Your task to perform on an android device: empty trash in the gmail app Image 0: 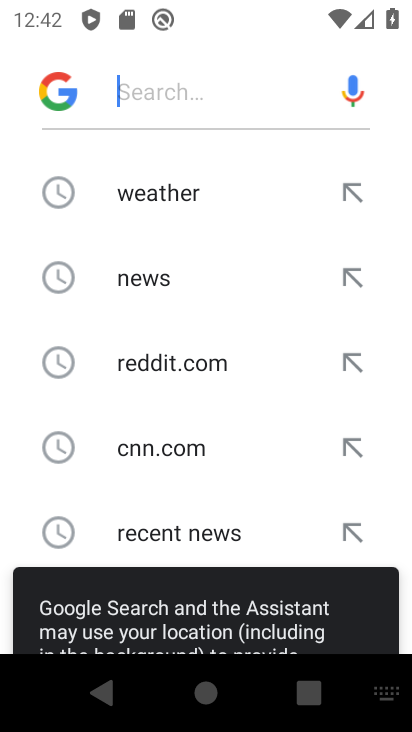
Step 0: press home button
Your task to perform on an android device: empty trash in the gmail app Image 1: 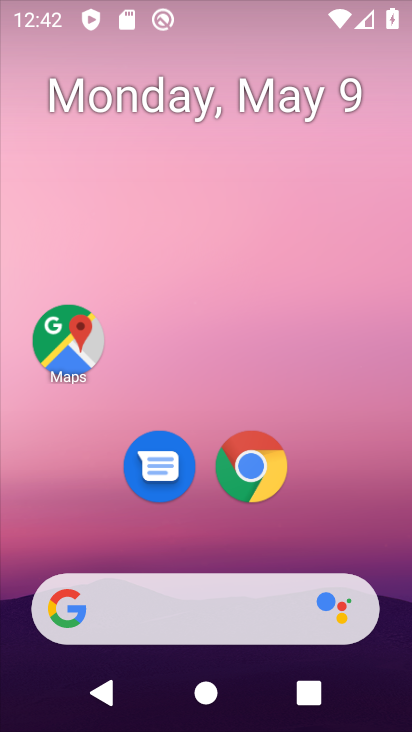
Step 1: drag from (297, 581) to (359, 94)
Your task to perform on an android device: empty trash in the gmail app Image 2: 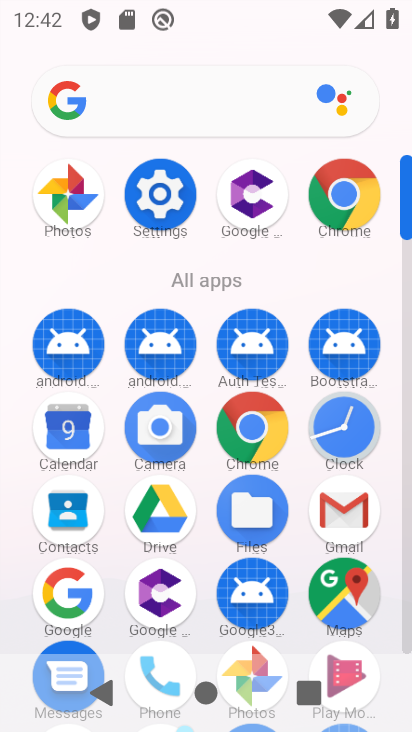
Step 2: click (351, 510)
Your task to perform on an android device: empty trash in the gmail app Image 3: 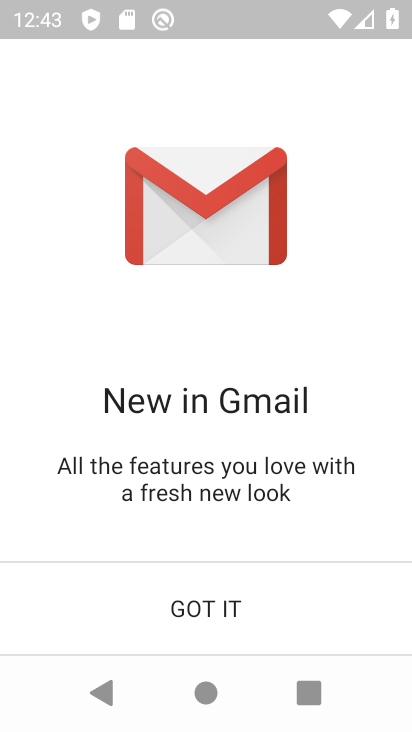
Step 3: click (272, 593)
Your task to perform on an android device: empty trash in the gmail app Image 4: 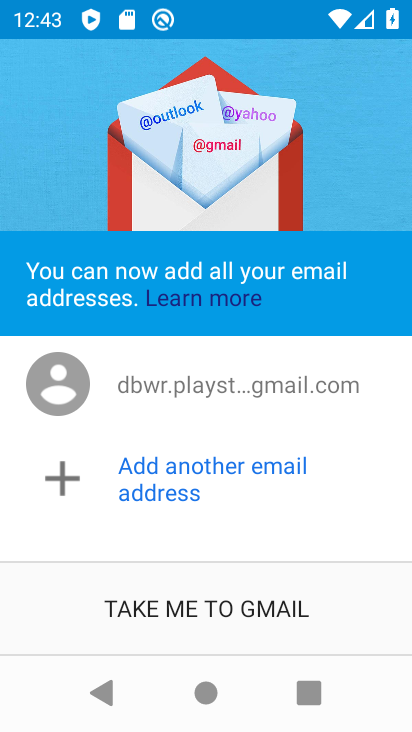
Step 4: click (268, 595)
Your task to perform on an android device: empty trash in the gmail app Image 5: 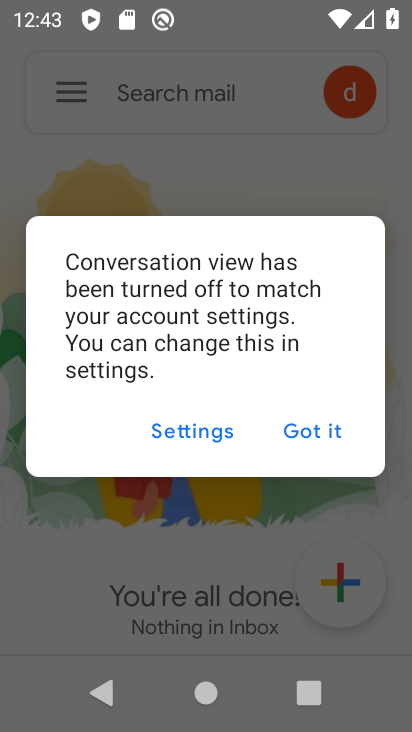
Step 5: click (339, 445)
Your task to perform on an android device: empty trash in the gmail app Image 6: 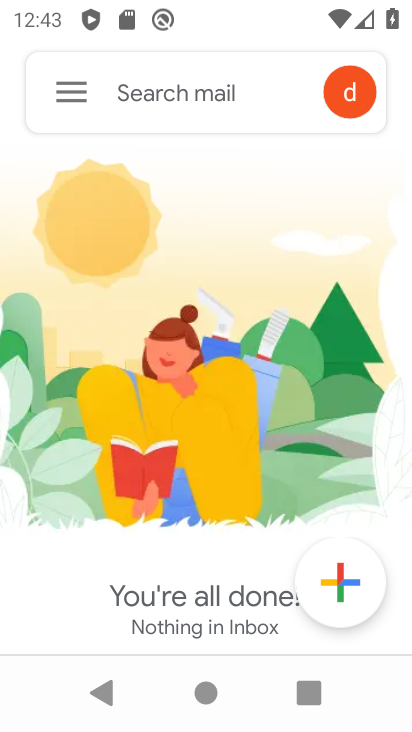
Step 6: click (83, 101)
Your task to perform on an android device: empty trash in the gmail app Image 7: 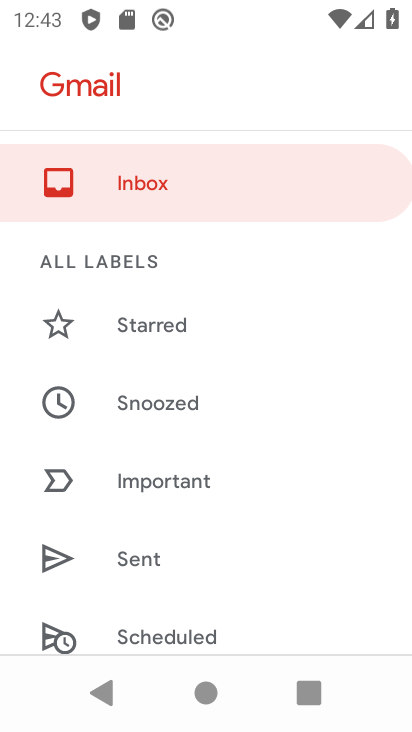
Step 7: drag from (178, 510) to (168, 297)
Your task to perform on an android device: empty trash in the gmail app Image 8: 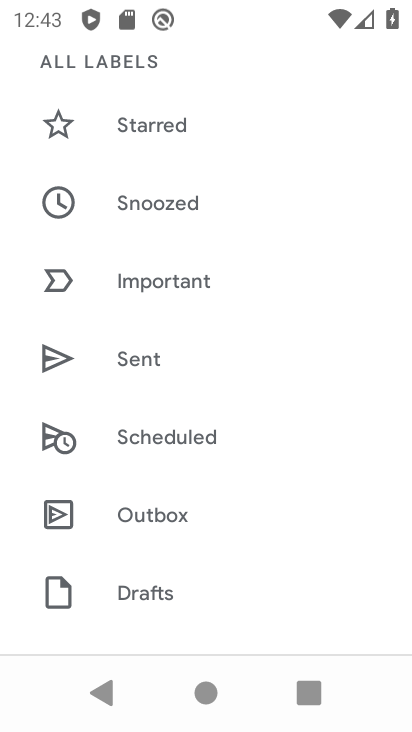
Step 8: drag from (213, 292) to (187, 512)
Your task to perform on an android device: empty trash in the gmail app Image 9: 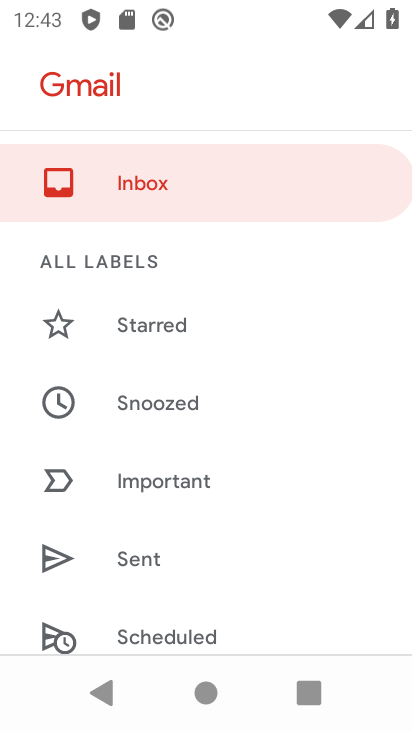
Step 9: drag from (207, 517) to (271, 139)
Your task to perform on an android device: empty trash in the gmail app Image 10: 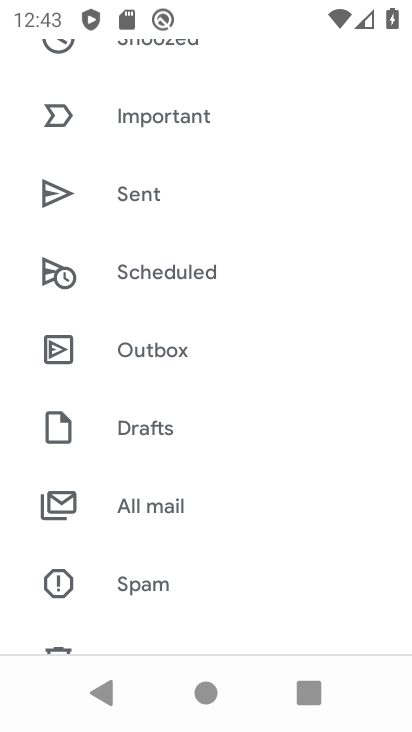
Step 10: drag from (170, 518) to (250, 202)
Your task to perform on an android device: empty trash in the gmail app Image 11: 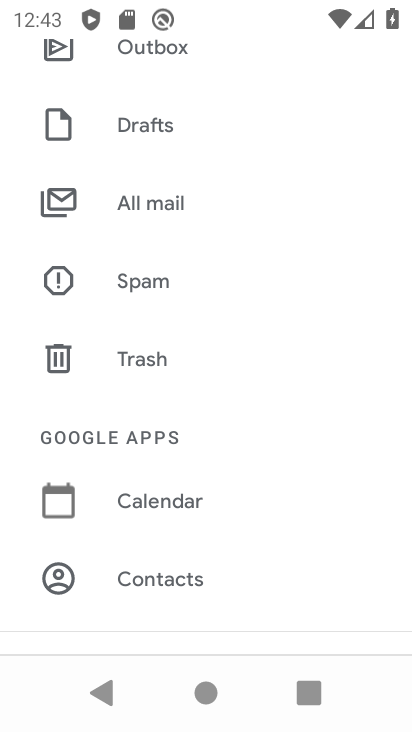
Step 11: click (152, 365)
Your task to perform on an android device: empty trash in the gmail app Image 12: 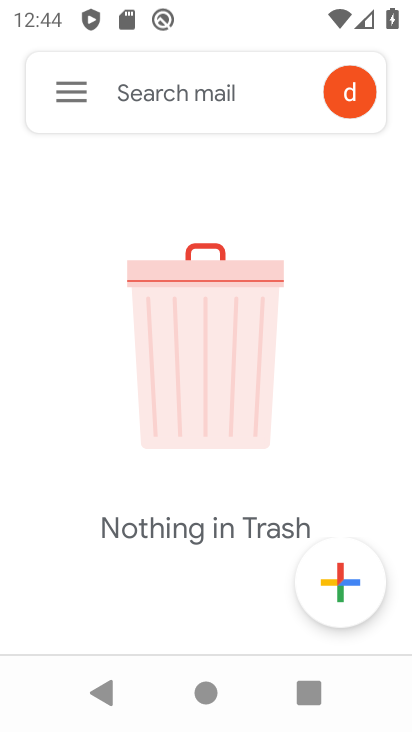
Step 12: task complete